Your task to perform on an android device: snooze an email in the gmail app Image 0: 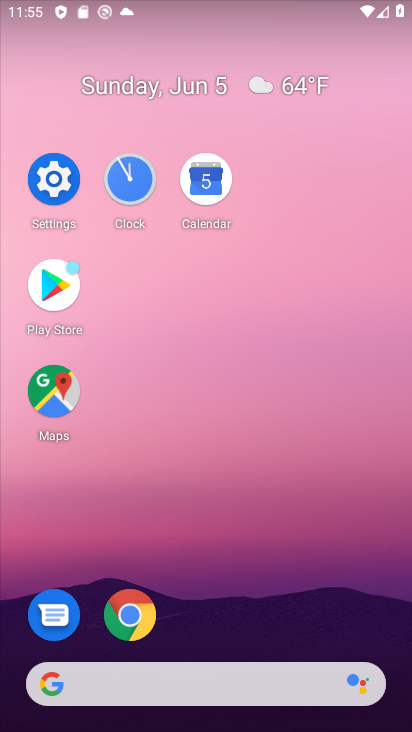
Step 0: drag from (277, 548) to (171, 18)
Your task to perform on an android device: snooze an email in the gmail app Image 1: 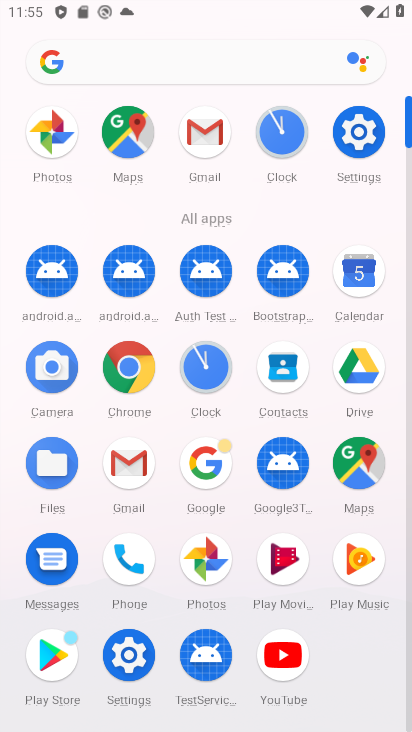
Step 1: drag from (140, 461) to (129, 295)
Your task to perform on an android device: snooze an email in the gmail app Image 2: 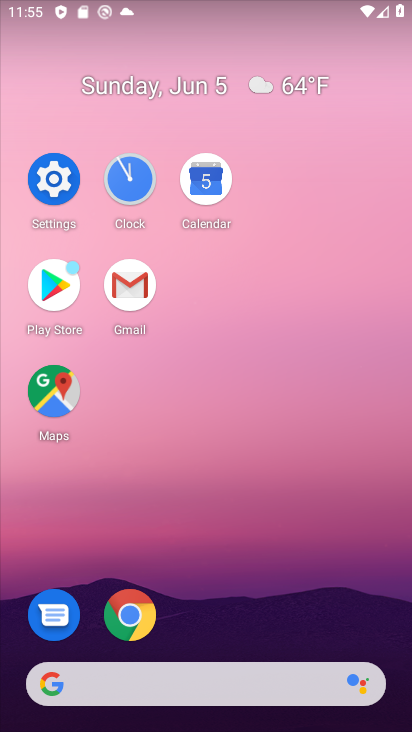
Step 2: click (138, 302)
Your task to perform on an android device: snooze an email in the gmail app Image 3: 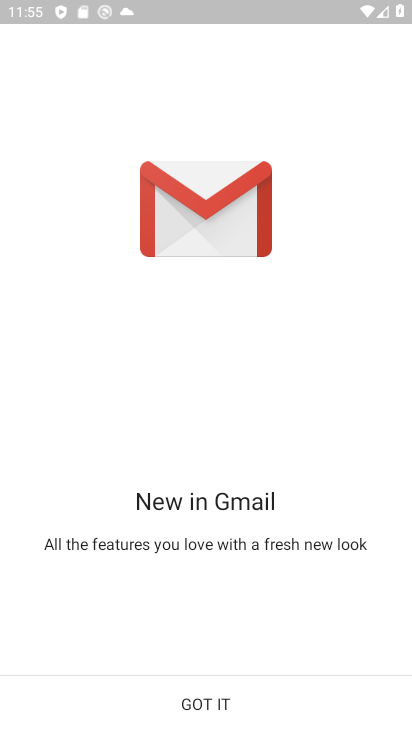
Step 3: click (267, 697)
Your task to perform on an android device: snooze an email in the gmail app Image 4: 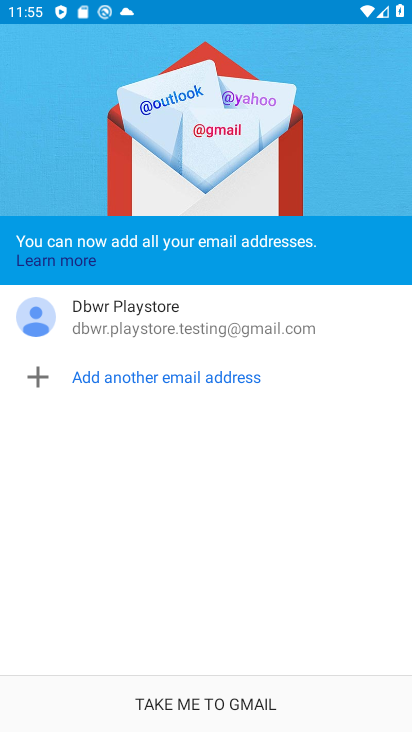
Step 4: click (263, 694)
Your task to perform on an android device: snooze an email in the gmail app Image 5: 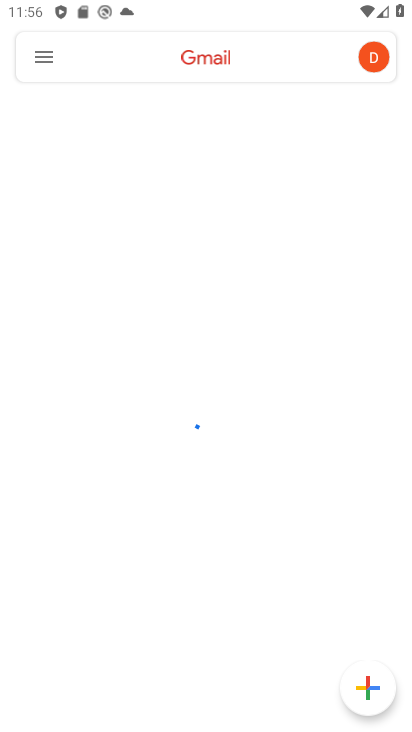
Step 5: click (40, 61)
Your task to perform on an android device: snooze an email in the gmail app Image 6: 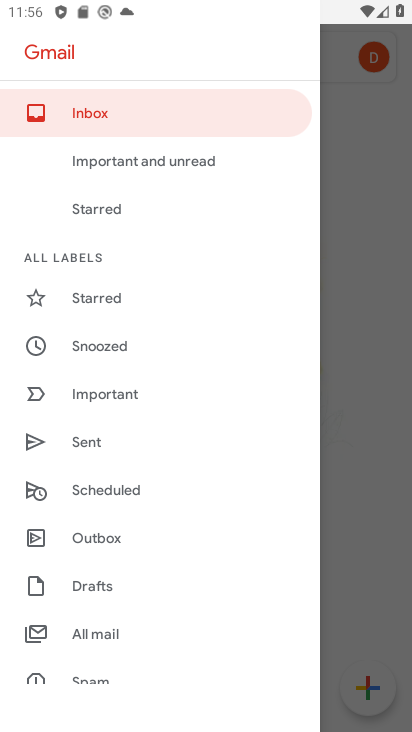
Step 6: click (190, 627)
Your task to perform on an android device: snooze an email in the gmail app Image 7: 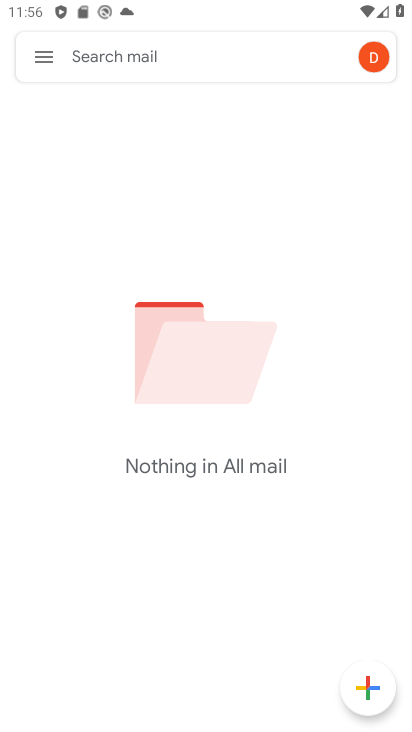
Step 7: task complete